Your task to perform on an android device: See recent photos Image 0: 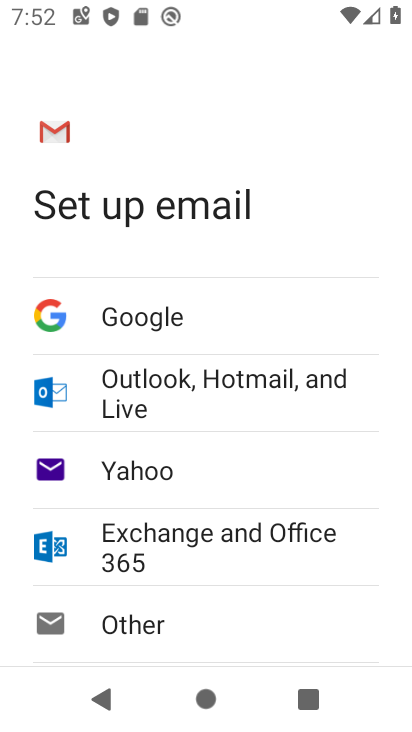
Step 0: press home button
Your task to perform on an android device: See recent photos Image 1: 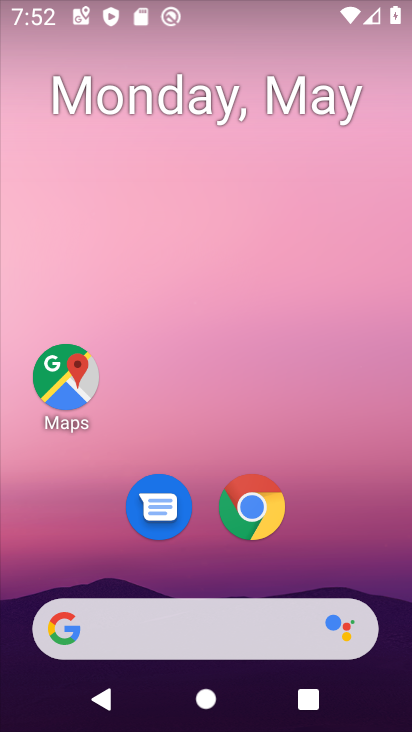
Step 1: drag from (206, 570) to (222, 11)
Your task to perform on an android device: See recent photos Image 2: 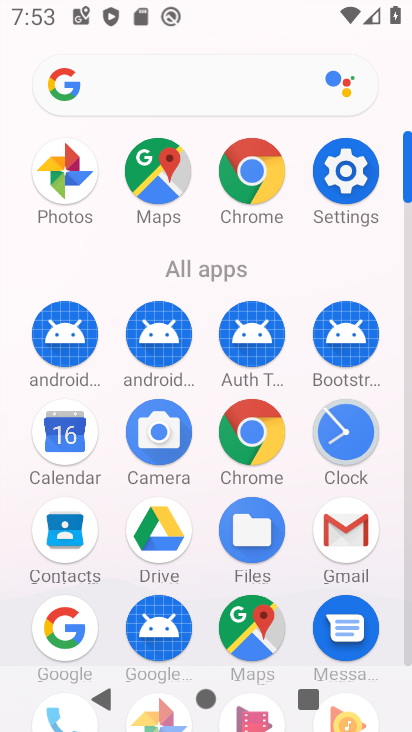
Step 2: drag from (206, 579) to (236, 154)
Your task to perform on an android device: See recent photos Image 3: 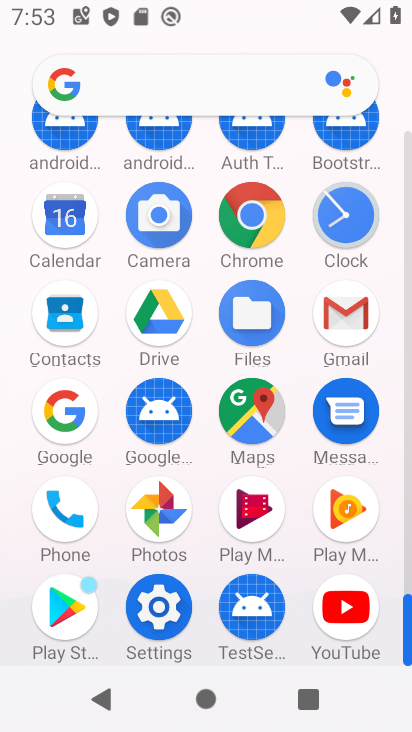
Step 3: click (159, 505)
Your task to perform on an android device: See recent photos Image 4: 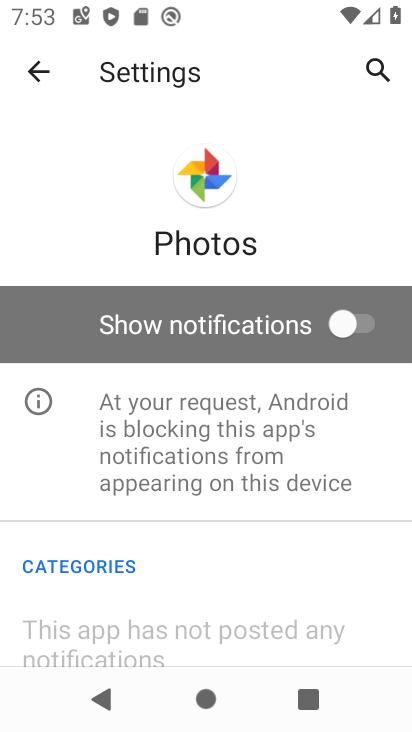
Step 4: click (43, 74)
Your task to perform on an android device: See recent photos Image 5: 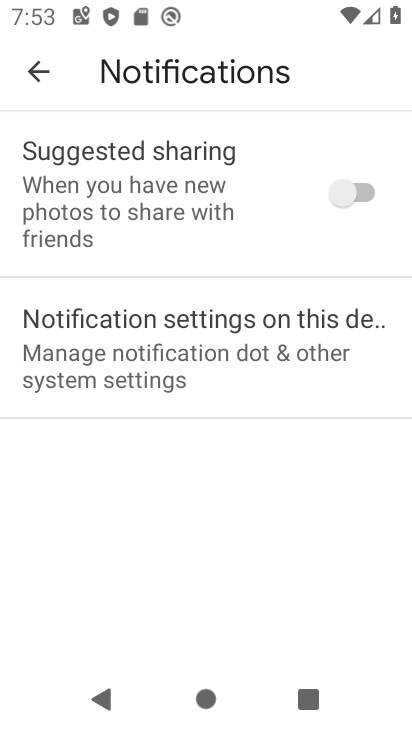
Step 5: click (43, 74)
Your task to perform on an android device: See recent photos Image 6: 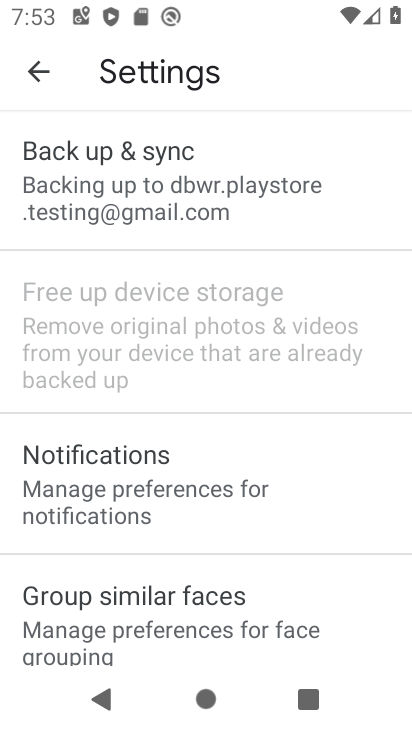
Step 6: click (40, 67)
Your task to perform on an android device: See recent photos Image 7: 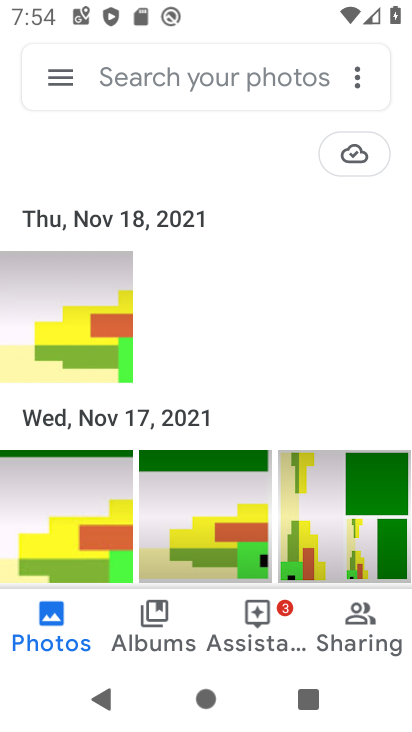
Step 7: task complete